Your task to perform on an android device: uninstall "Reddit" Image 0: 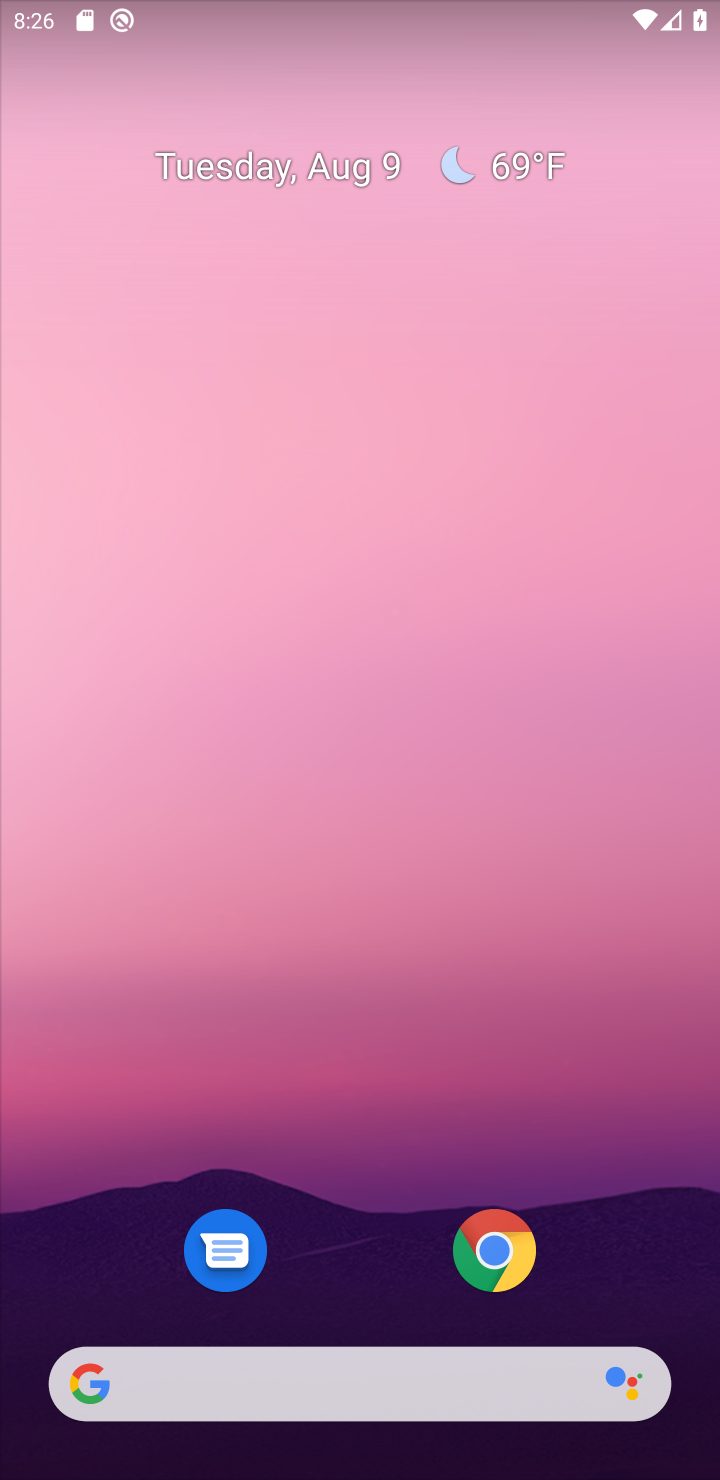
Step 0: drag from (695, 1214) to (443, 210)
Your task to perform on an android device: uninstall "Reddit" Image 1: 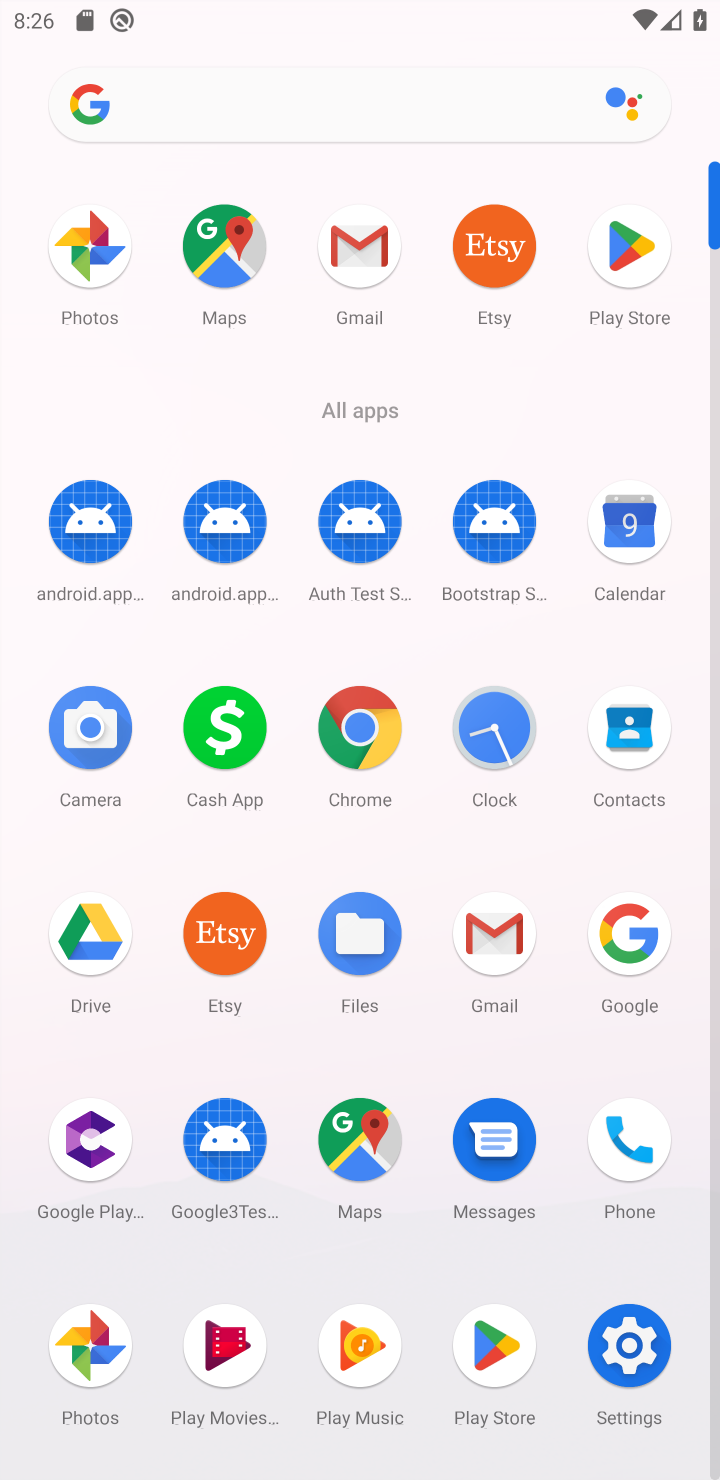
Step 1: click (620, 252)
Your task to perform on an android device: uninstall "Reddit" Image 2: 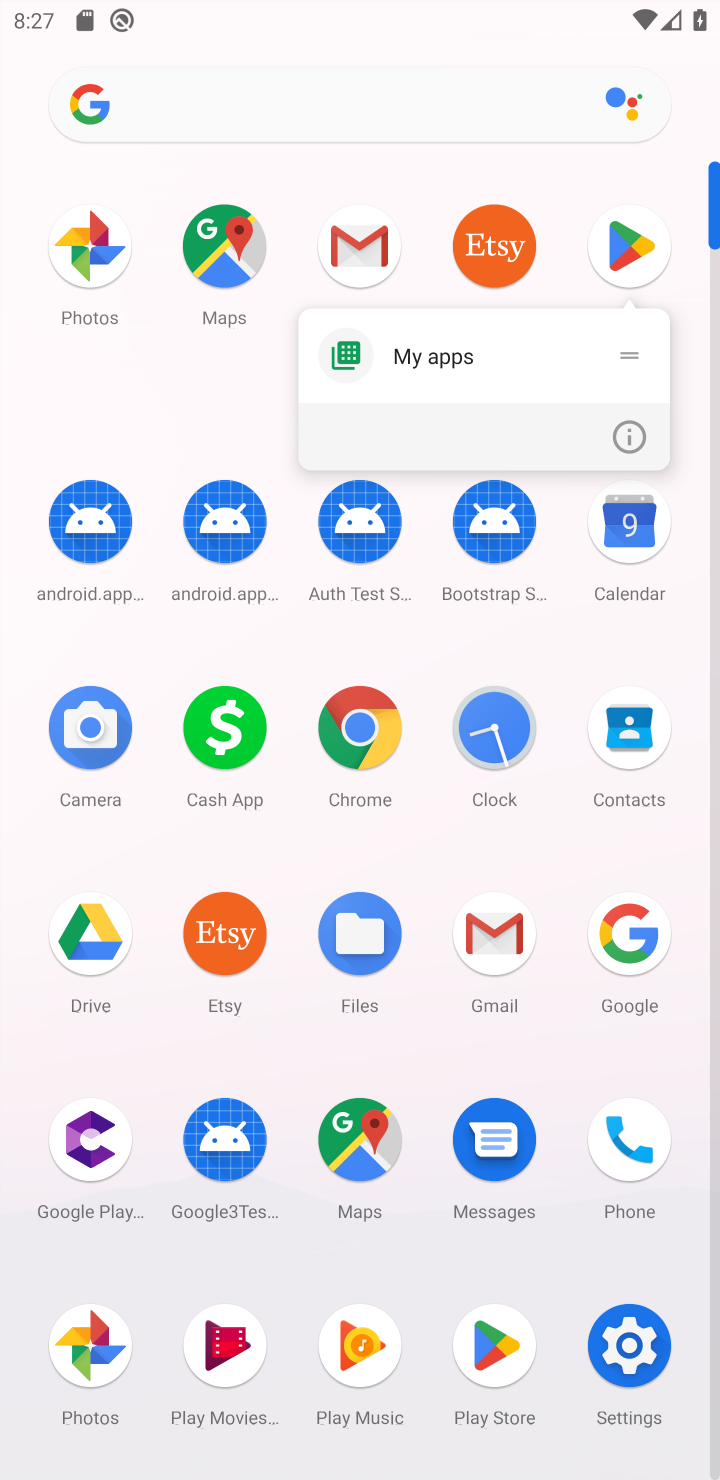
Step 2: click (623, 238)
Your task to perform on an android device: uninstall "Reddit" Image 3: 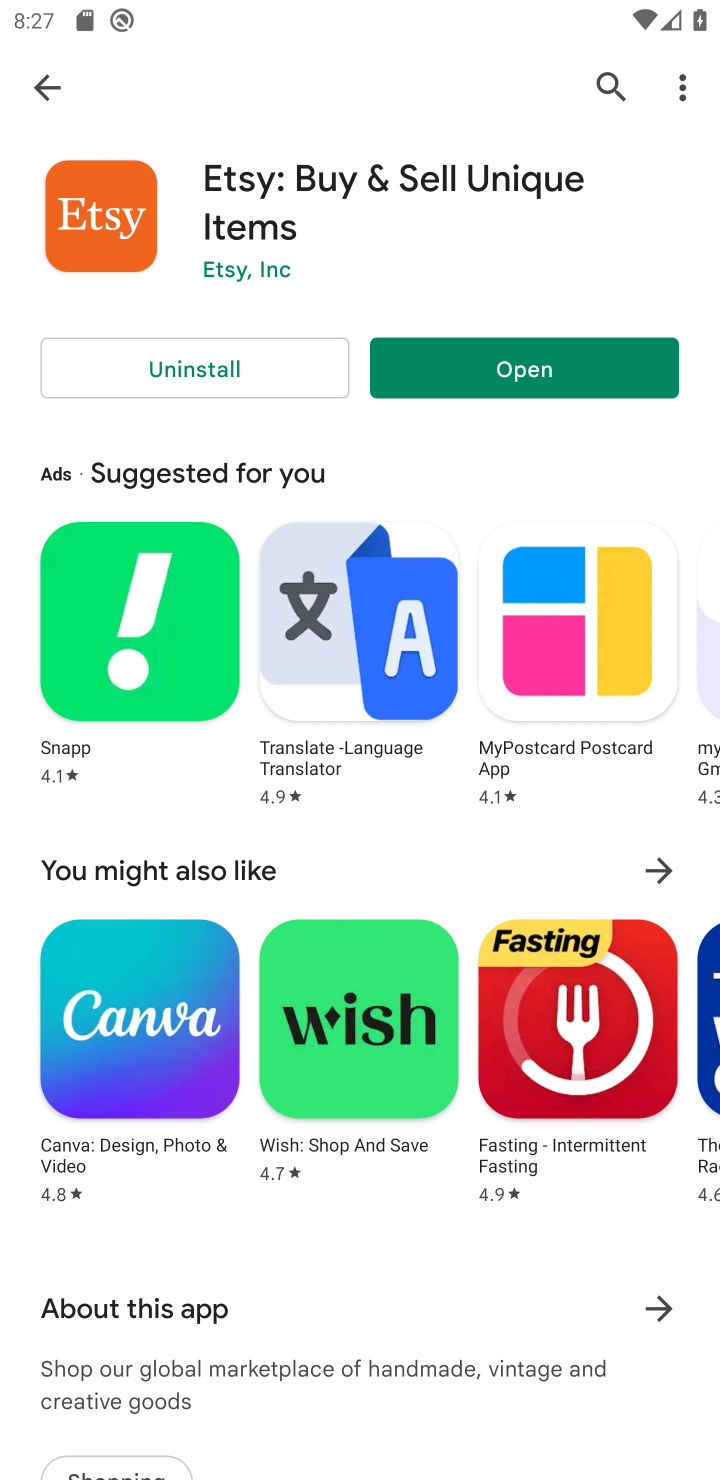
Step 3: click (595, 62)
Your task to perform on an android device: uninstall "Reddit" Image 4: 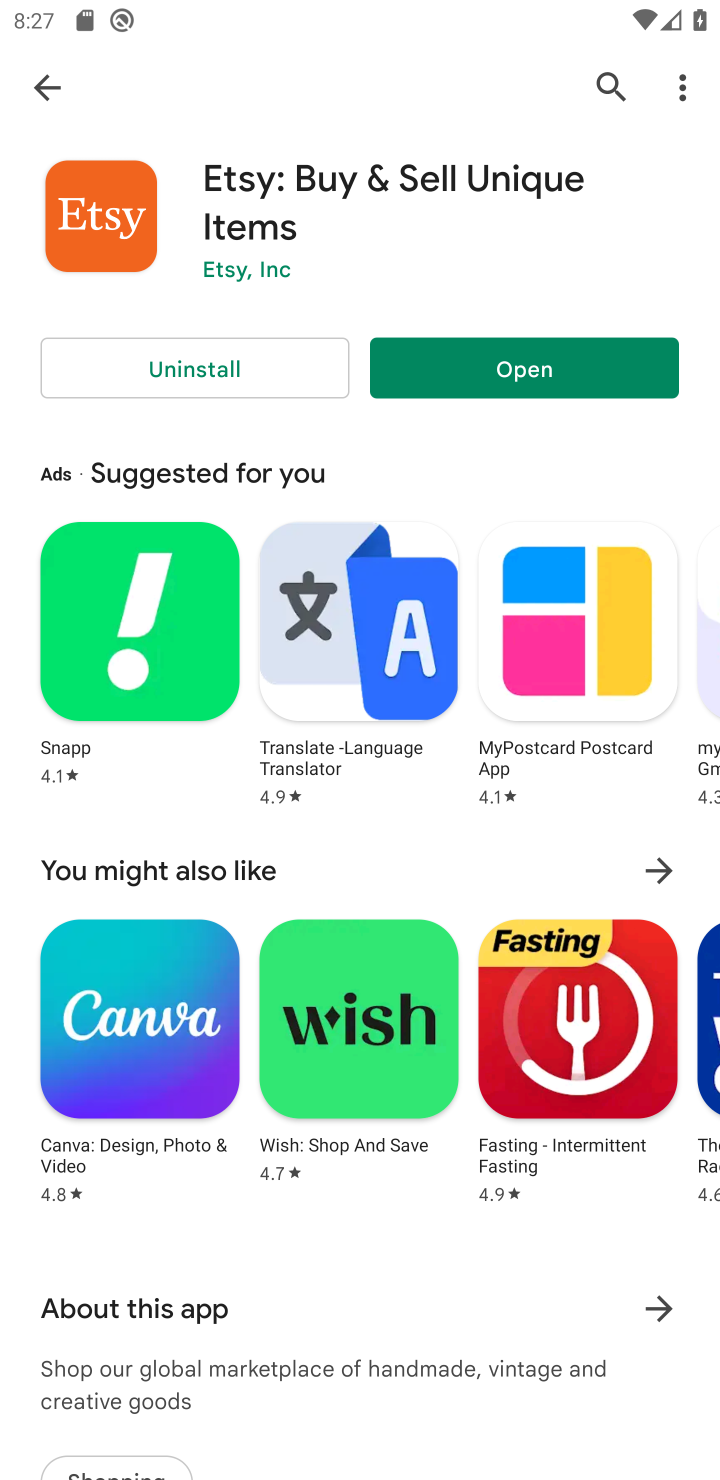
Step 4: click (602, 82)
Your task to perform on an android device: uninstall "Reddit" Image 5: 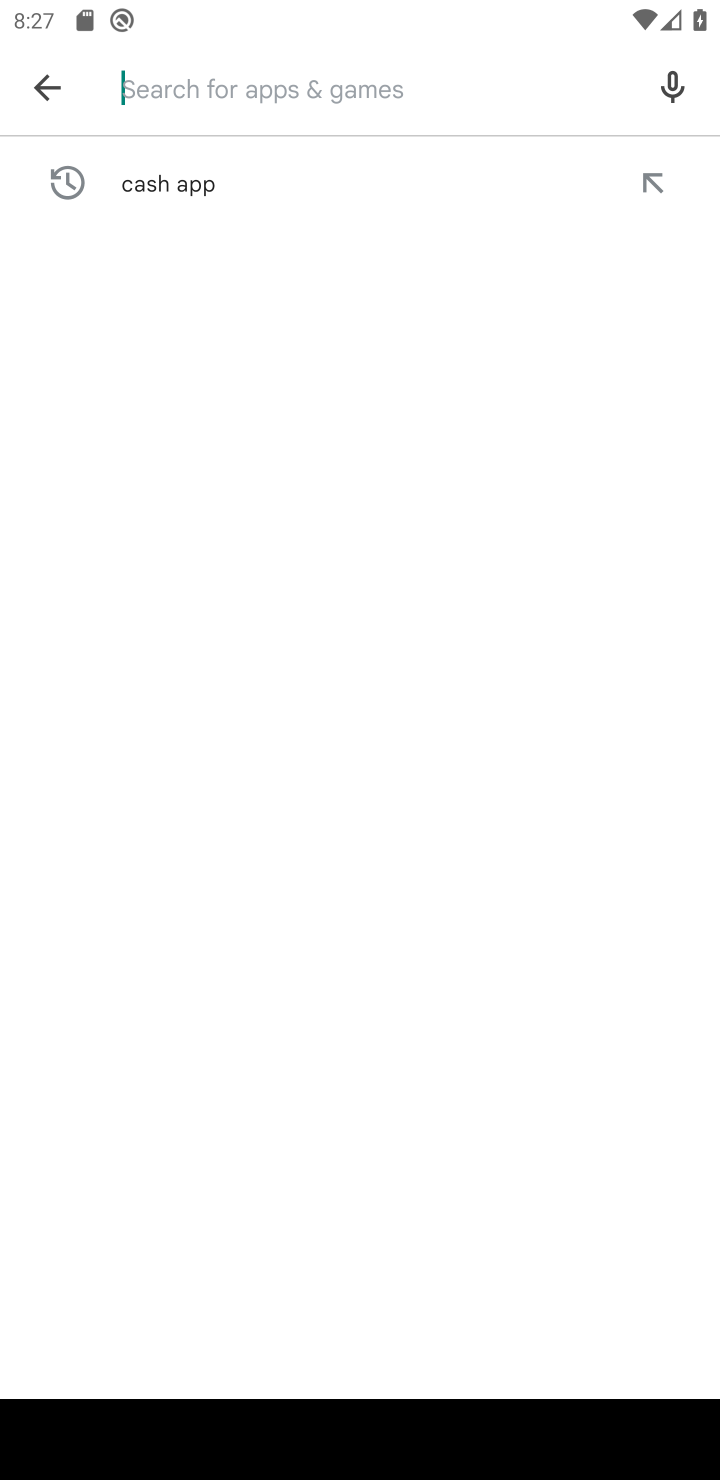
Step 5: type "Reddit"
Your task to perform on an android device: uninstall "Reddit" Image 6: 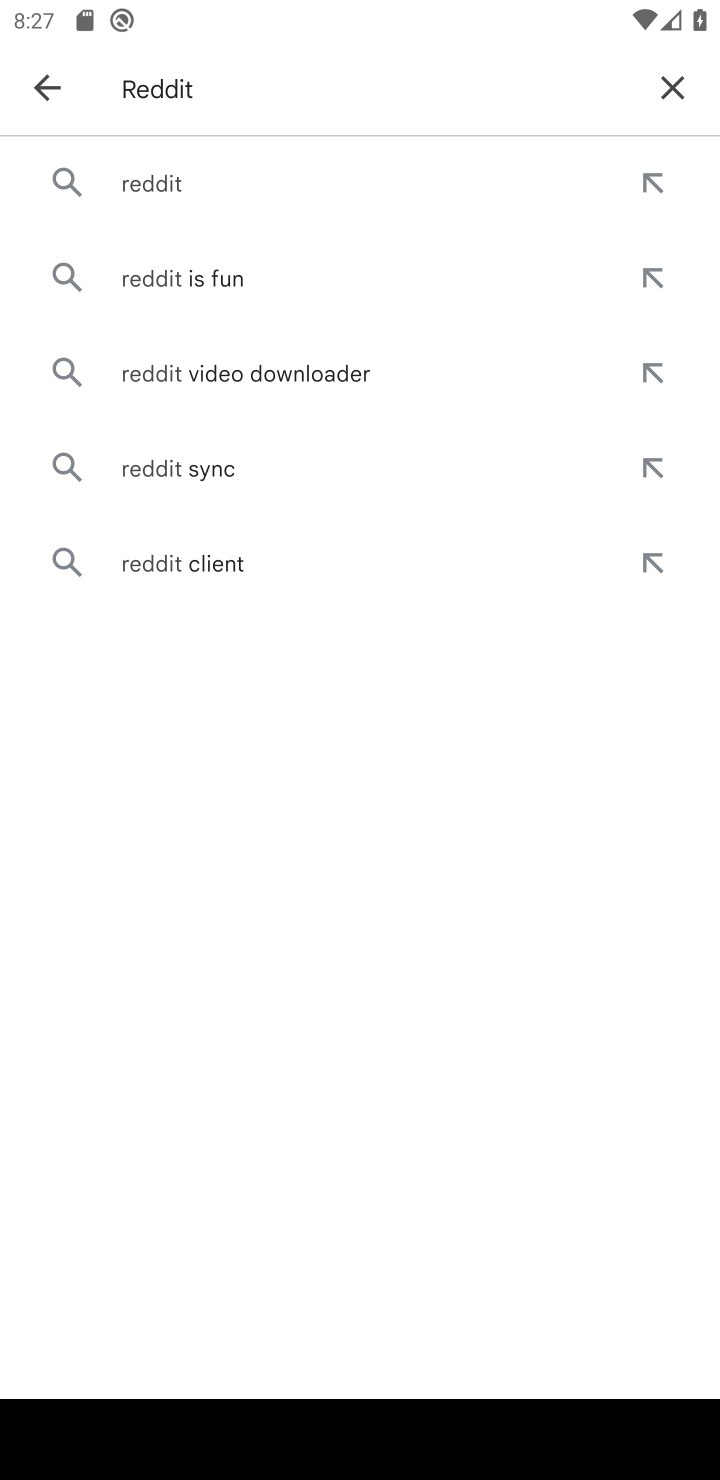
Step 6: click (129, 185)
Your task to perform on an android device: uninstall "Reddit" Image 7: 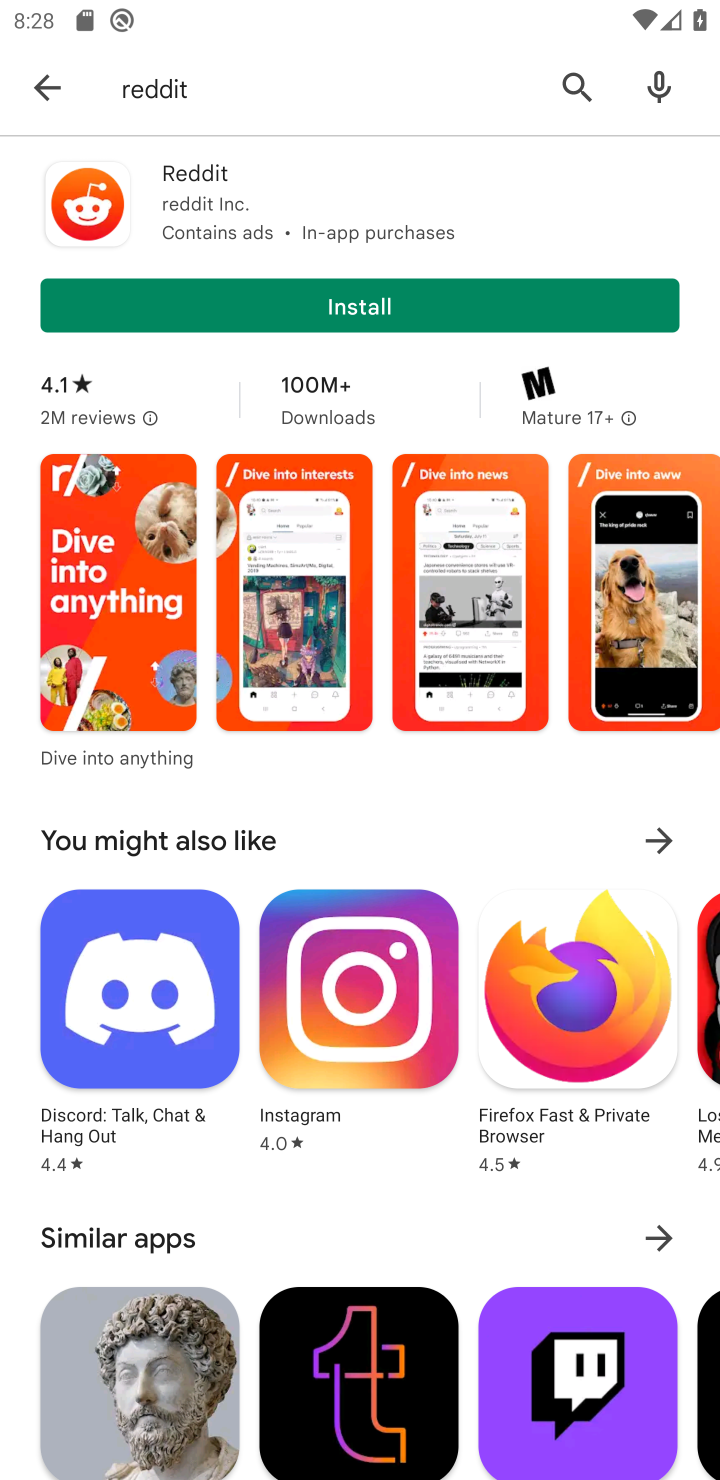
Step 7: task complete